Your task to perform on an android device: Open location settings Image 0: 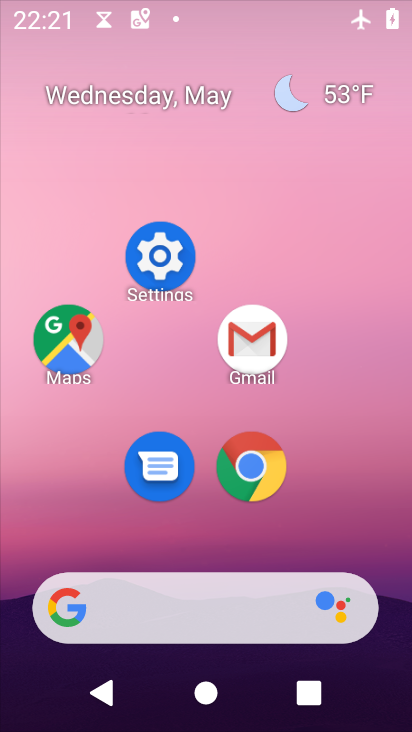
Step 0: click (258, 429)
Your task to perform on an android device: Open location settings Image 1: 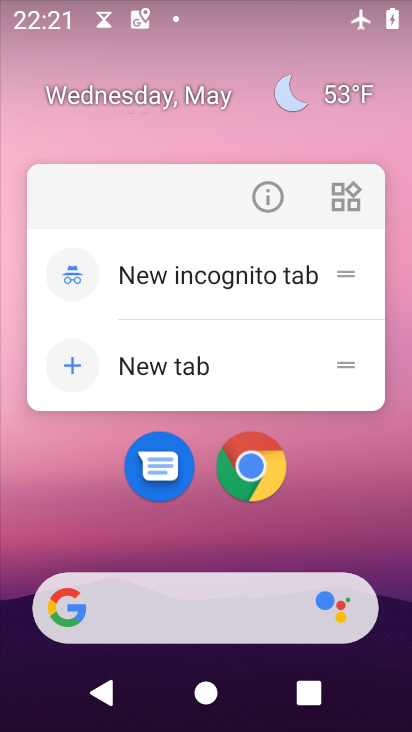
Step 1: click (280, 190)
Your task to perform on an android device: Open location settings Image 2: 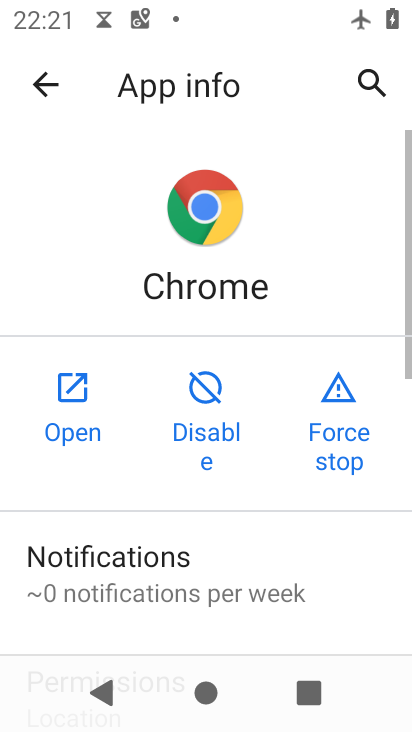
Step 2: click (70, 390)
Your task to perform on an android device: Open location settings Image 3: 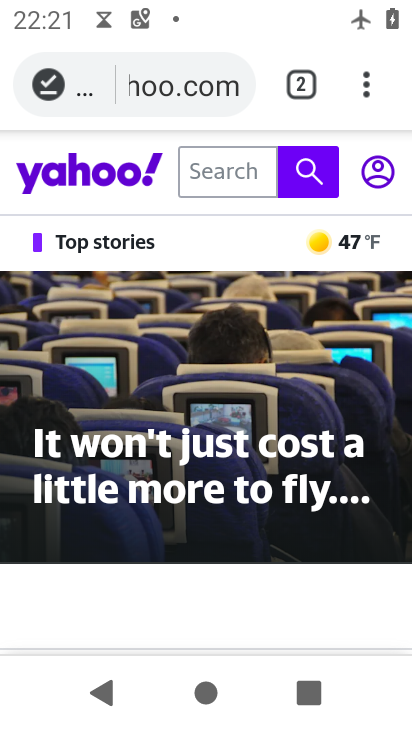
Step 3: click (364, 69)
Your task to perform on an android device: Open location settings Image 4: 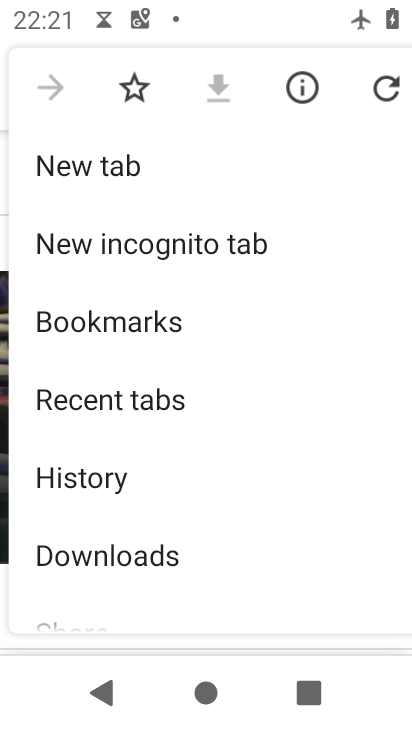
Step 4: drag from (215, 511) to (249, 285)
Your task to perform on an android device: Open location settings Image 5: 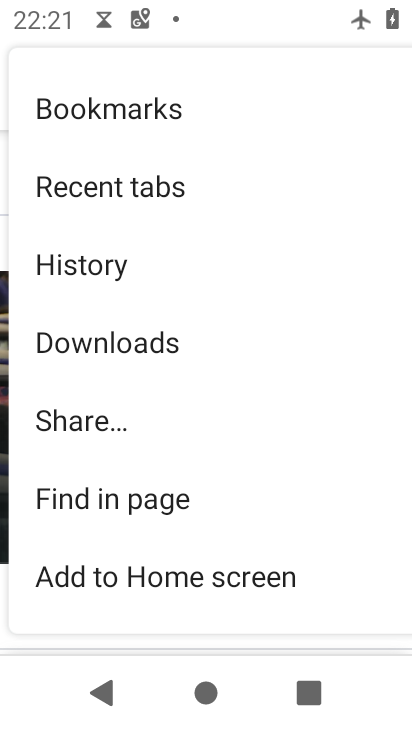
Step 5: drag from (157, 426) to (246, 32)
Your task to perform on an android device: Open location settings Image 6: 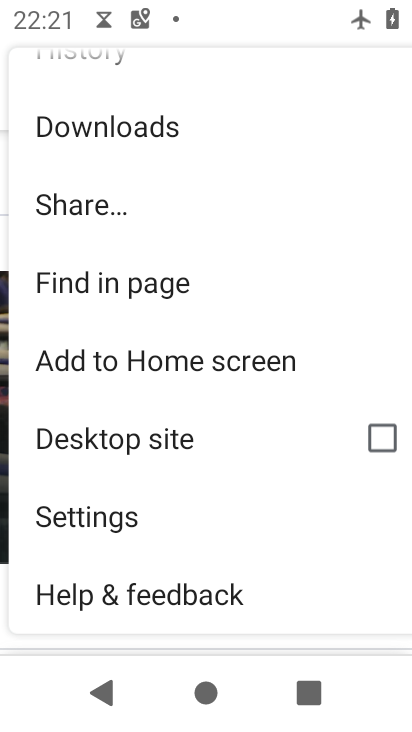
Step 6: click (141, 525)
Your task to perform on an android device: Open location settings Image 7: 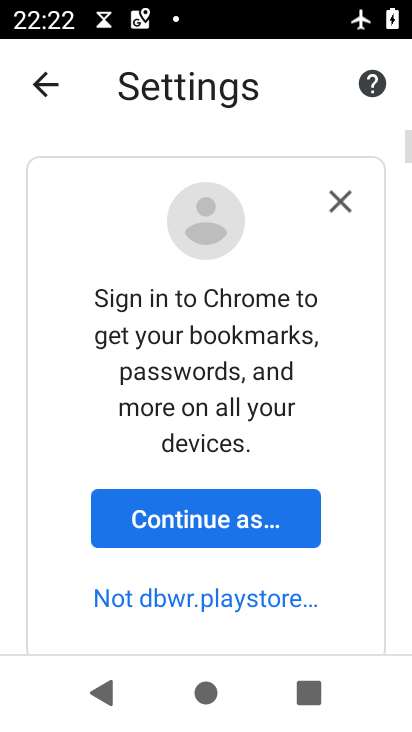
Step 7: drag from (207, 583) to (265, 143)
Your task to perform on an android device: Open location settings Image 8: 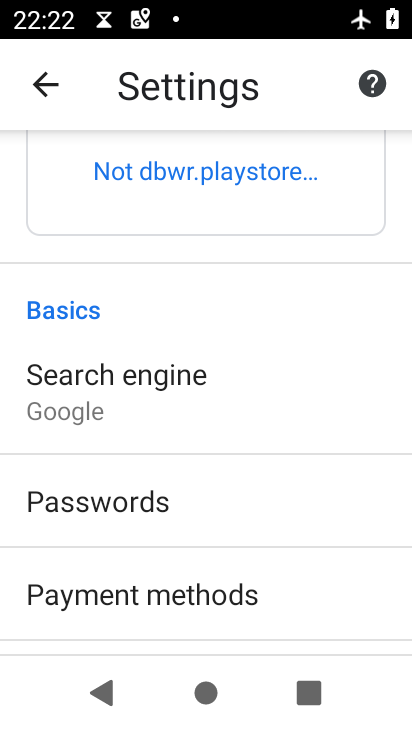
Step 8: drag from (270, 545) to (360, 19)
Your task to perform on an android device: Open location settings Image 9: 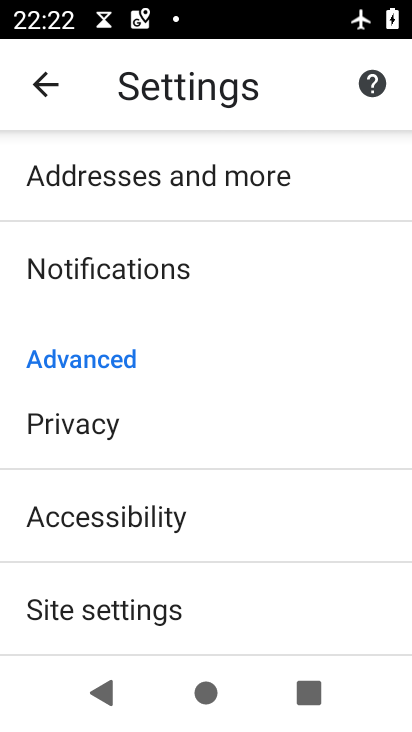
Step 9: drag from (204, 585) to (213, 203)
Your task to perform on an android device: Open location settings Image 10: 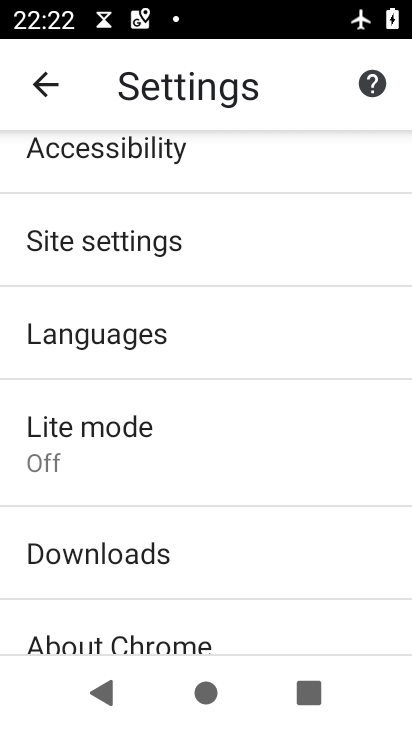
Step 10: press home button
Your task to perform on an android device: Open location settings Image 11: 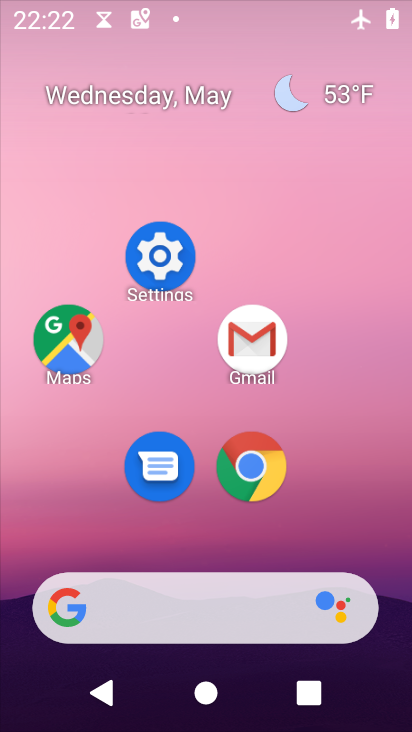
Step 11: drag from (174, 597) to (214, 140)
Your task to perform on an android device: Open location settings Image 12: 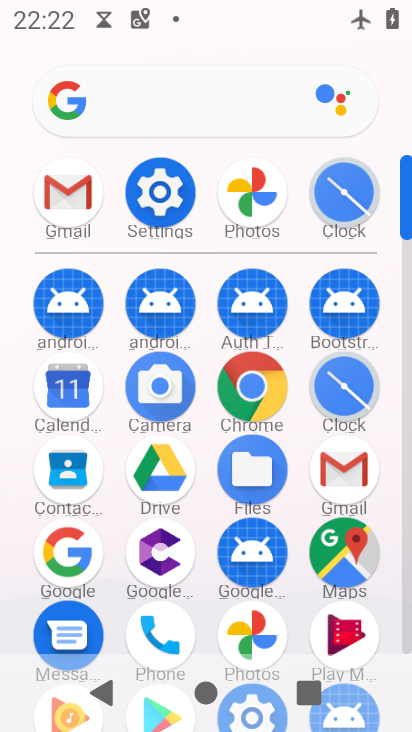
Step 12: click (171, 201)
Your task to perform on an android device: Open location settings Image 13: 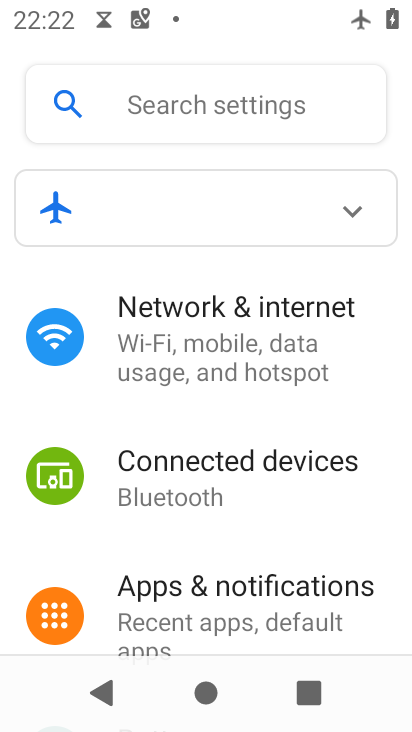
Step 13: drag from (281, 517) to (288, 164)
Your task to perform on an android device: Open location settings Image 14: 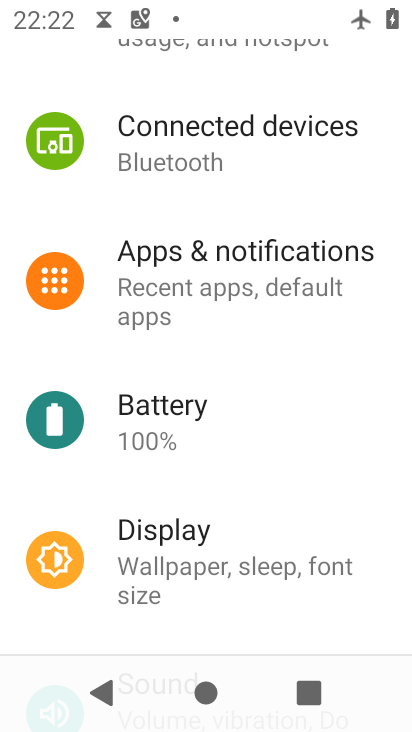
Step 14: drag from (188, 572) to (196, 289)
Your task to perform on an android device: Open location settings Image 15: 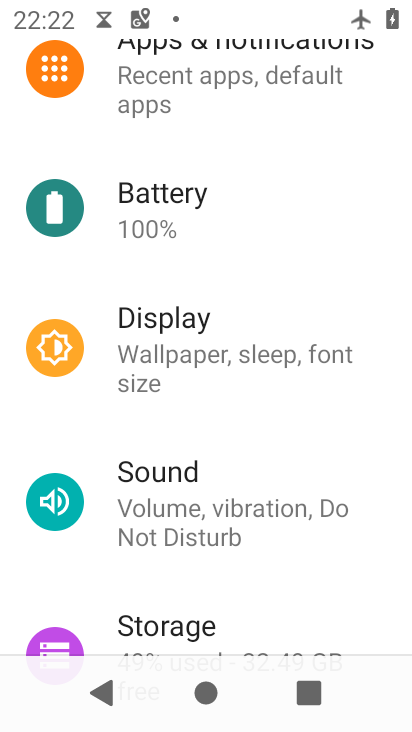
Step 15: drag from (203, 579) to (215, 362)
Your task to perform on an android device: Open location settings Image 16: 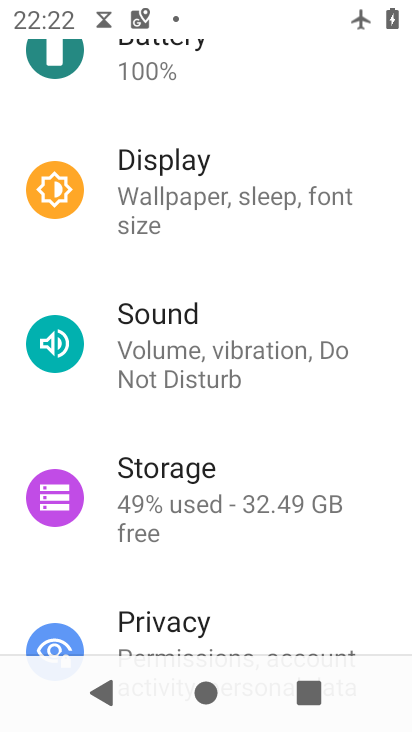
Step 16: drag from (201, 528) to (218, 300)
Your task to perform on an android device: Open location settings Image 17: 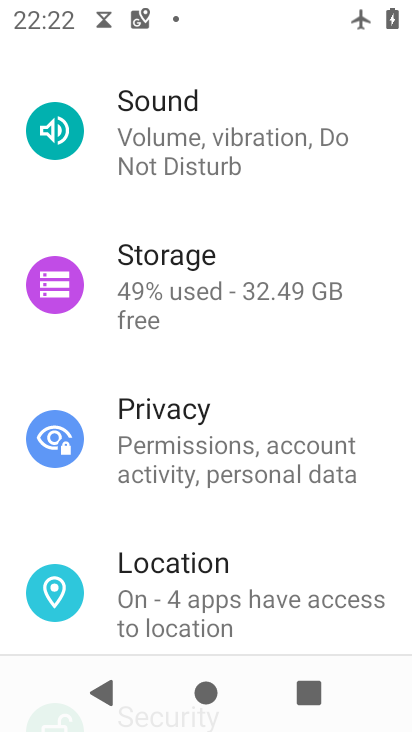
Step 17: click (216, 248)
Your task to perform on an android device: Open location settings Image 18: 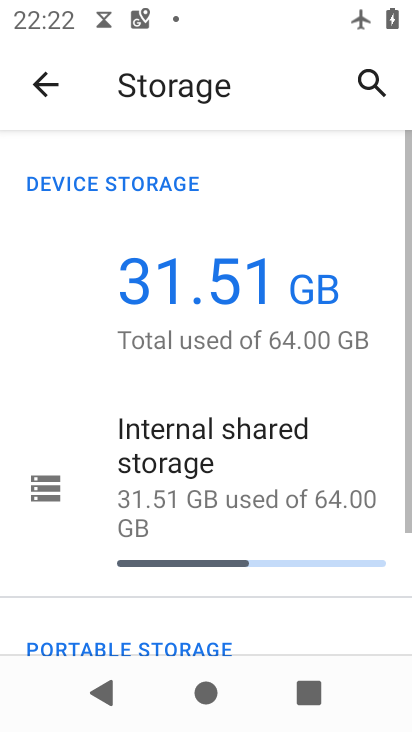
Step 18: click (237, 223)
Your task to perform on an android device: Open location settings Image 19: 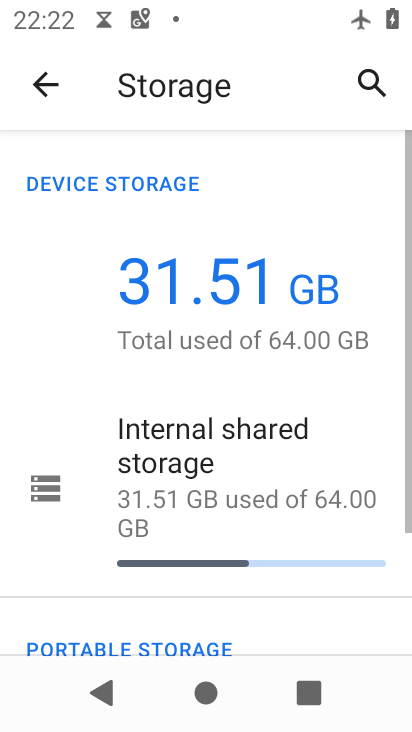
Step 19: drag from (245, 531) to (282, 267)
Your task to perform on an android device: Open location settings Image 20: 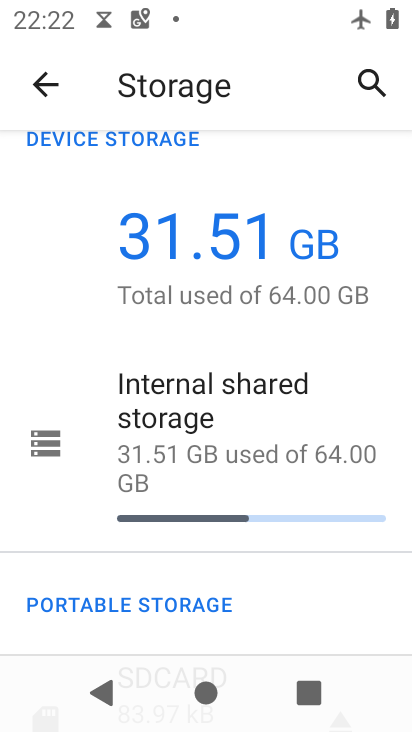
Step 20: click (32, 73)
Your task to perform on an android device: Open location settings Image 21: 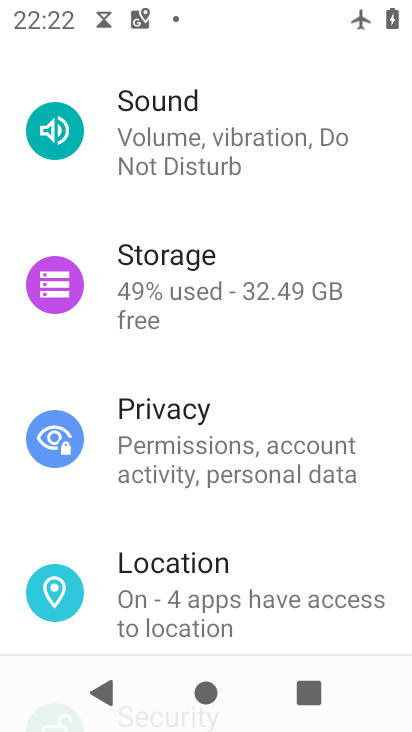
Step 21: click (217, 580)
Your task to perform on an android device: Open location settings Image 22: 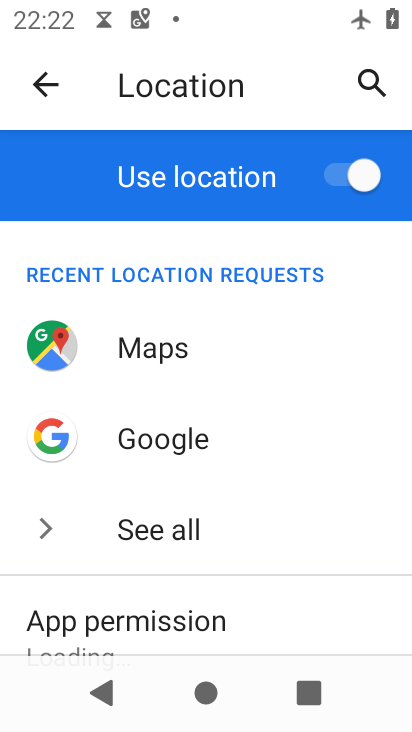
Step 22: task complete